Your task to perform on an android device: Open the web browser Image 0: 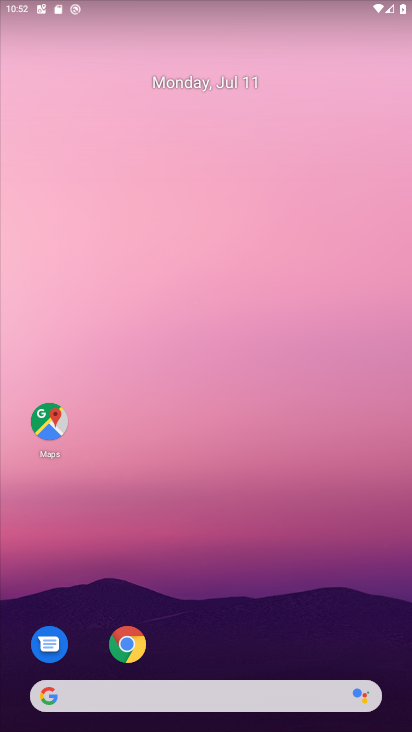
Step 0: click (136, 647)
Your task to perform on an android device: Open the web browser Image 1: 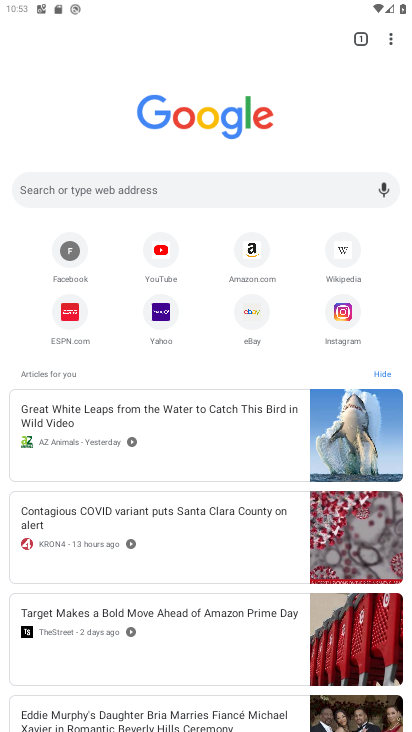
Step 1: task complete